Your task to perform on an android device: toggle location history Image 0: 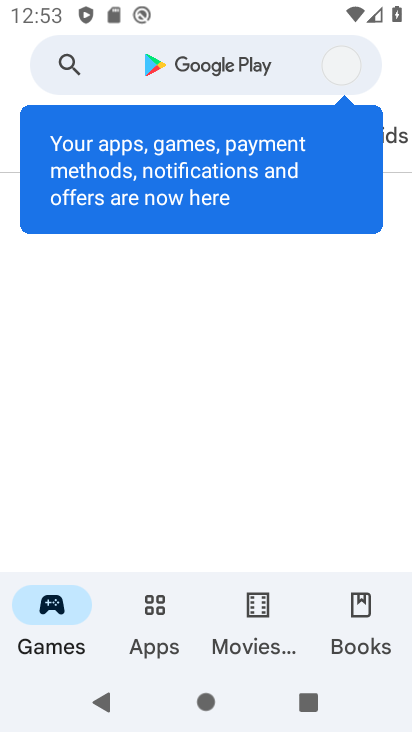
Step 0: press home button
Your task to perform on an android device: toggle location history Image 1: 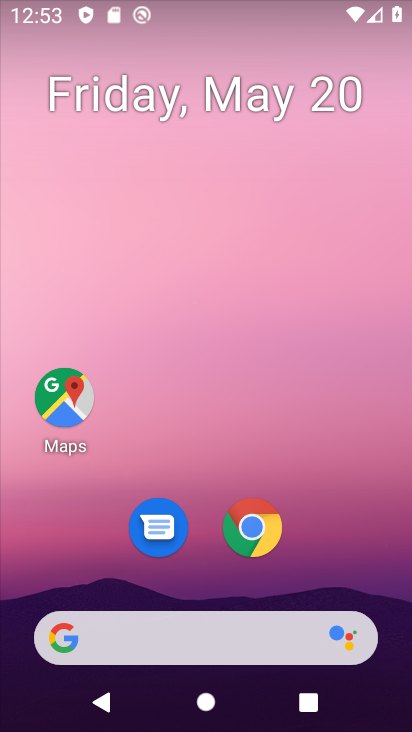
Step 1: click (60, 397)
Your task to perform on an android device: toggle location history Image 2: 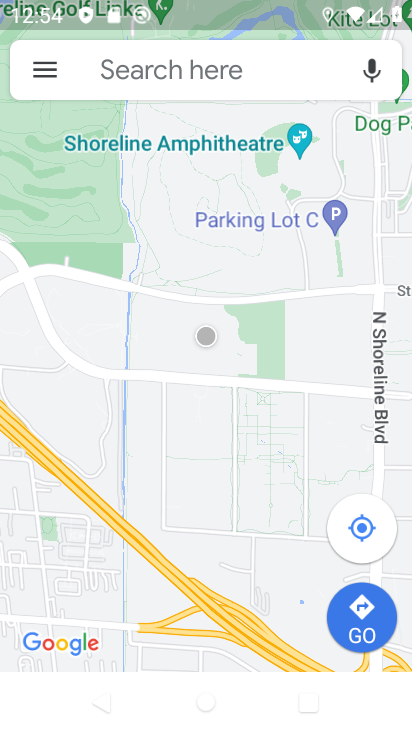
Step 2: click (48, 73)
Your task to perform on an android device: toggle location history Image 3: 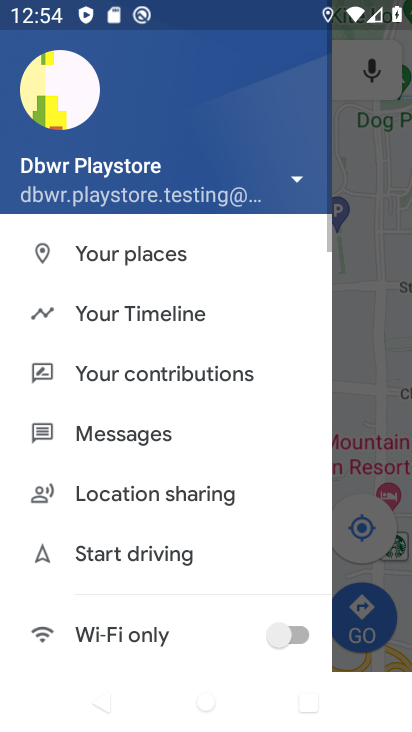
Step 3: click (141, 306)
Your task to perform on an android device: toggle location history Image 4: 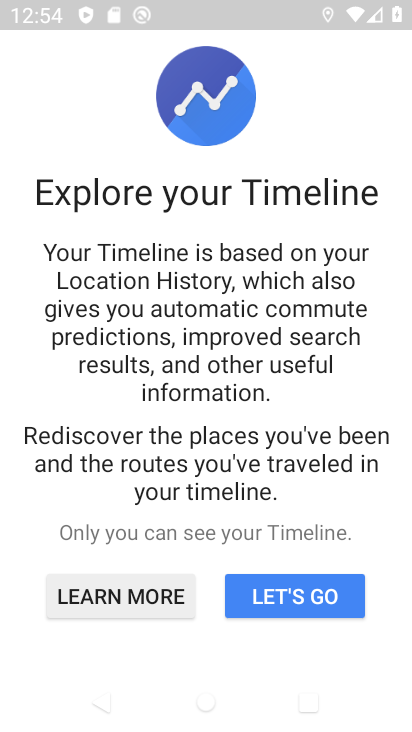
Step 4: drag from (184, 516) to (337, 225)
Your task to perform on an android device: toggle location history Image 5: 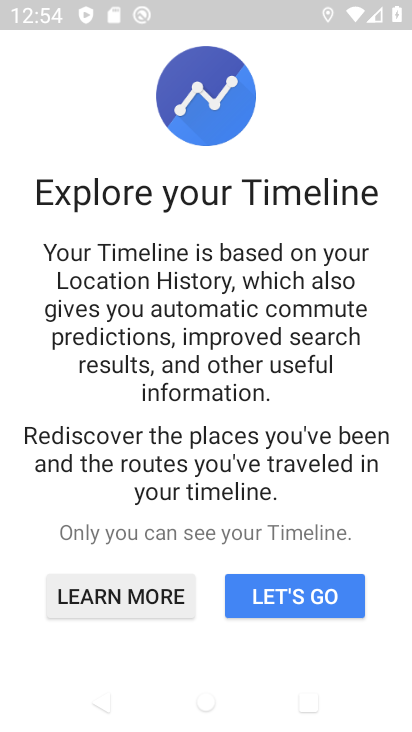
Step 5: click (313, 592)
Your task to perform on an android device: toggle location history Image 6: 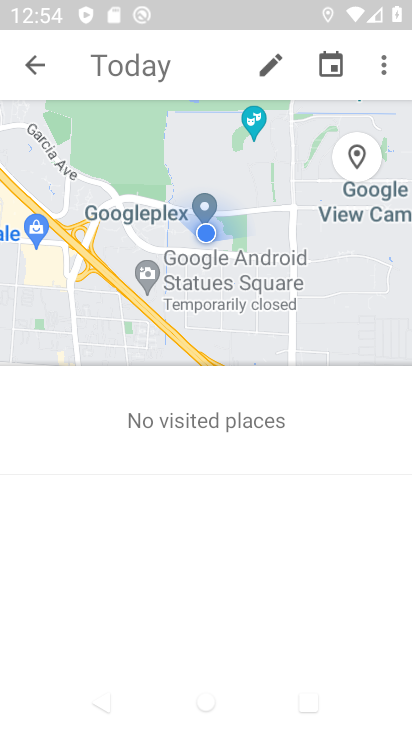
Step 6: click (388, 63)
Your task to perform on an android device: toggle location history Image 7: 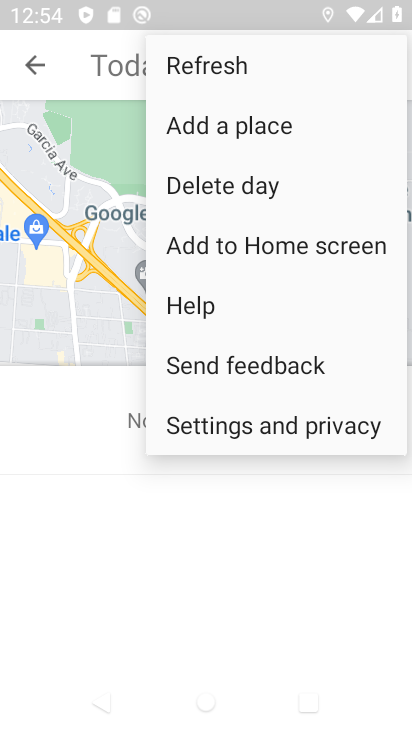
Step 7: click (245, 422)
Your task to perform on an android device: toggle location history Image 8: 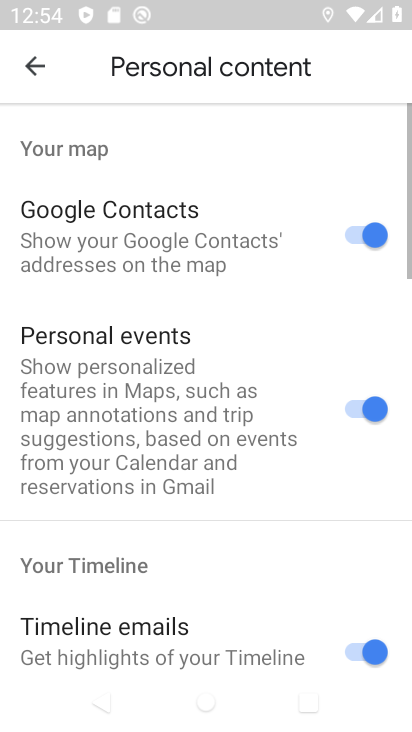
Step 8: drag from (172, 591) to (372, 39)
Your task to perform on an android device: toggle location history Image 9: 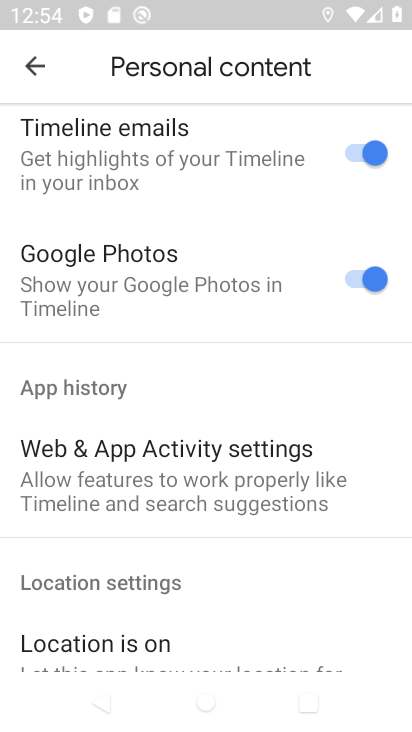
Step 9: drag from (211, 517) to (344, 153)
Your task to perform on an android device: toggle location history Image 10: 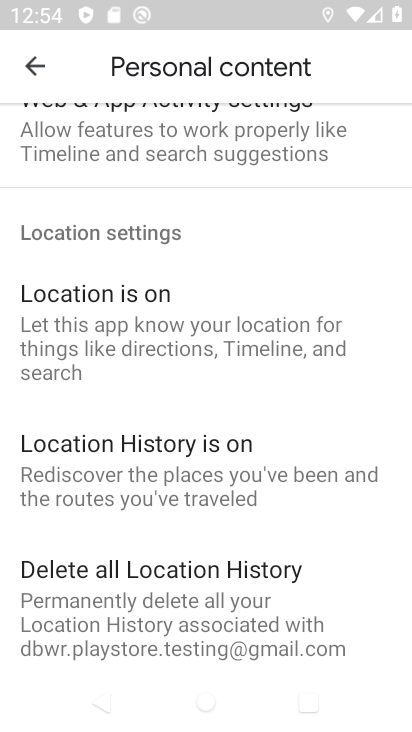
Step 10: click (221, 463)
Your task to perform on an android device: toggle location history Image 11: 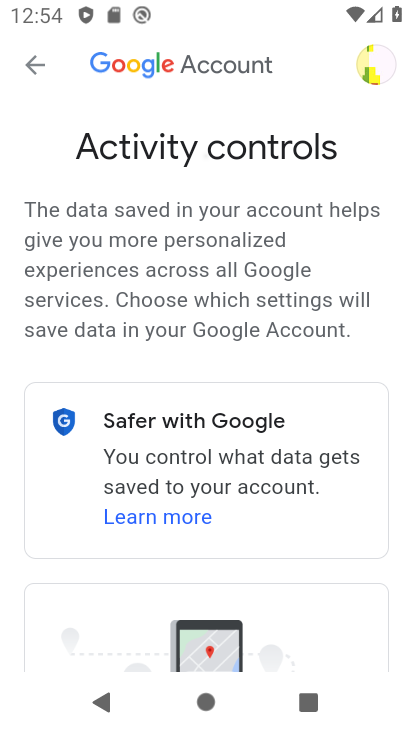
Step 11: drag from (248, 595) to (389, 90)
Your task to perform on an android device: toggle location history Image 12: 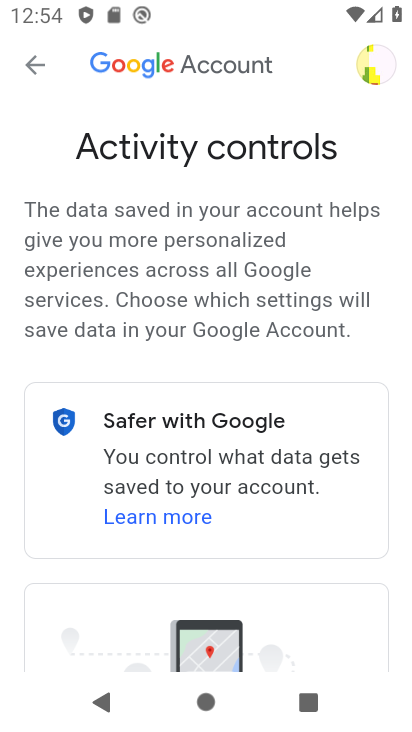
Step 12: drag from (136, 621) to (395, 9)
Your task to perform on an android device: toggle location history Image 13: 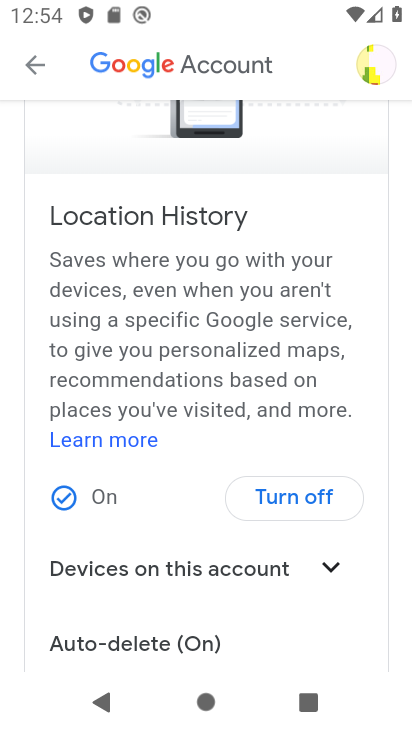
Step 13: click (312, 496)
Your task to perform on an android device: toggle location history Image 14: 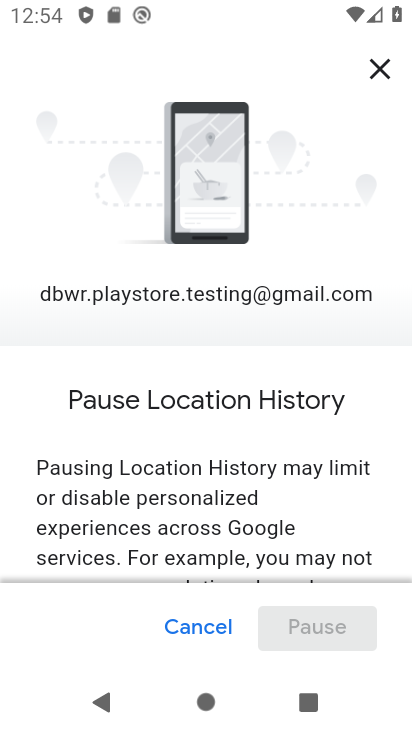
Step 14: drag from (257, 554) to (360, 176)
Your task to perform on an android device: toggle location history Image 15: 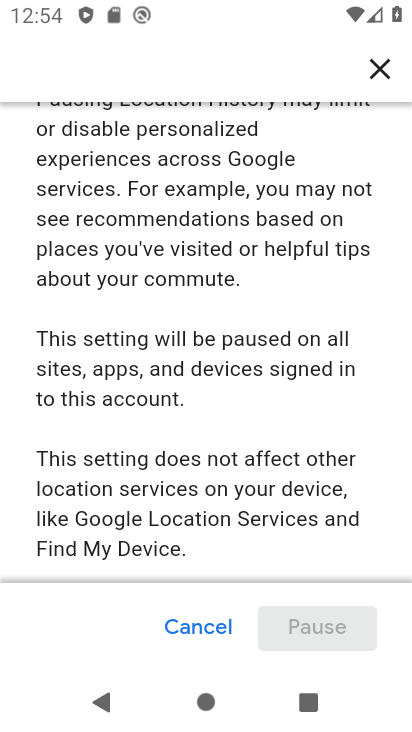
Step 15: drag from (244, 511) to (346, 165)
Your task to perform on an android device: toggle location history Image 16: 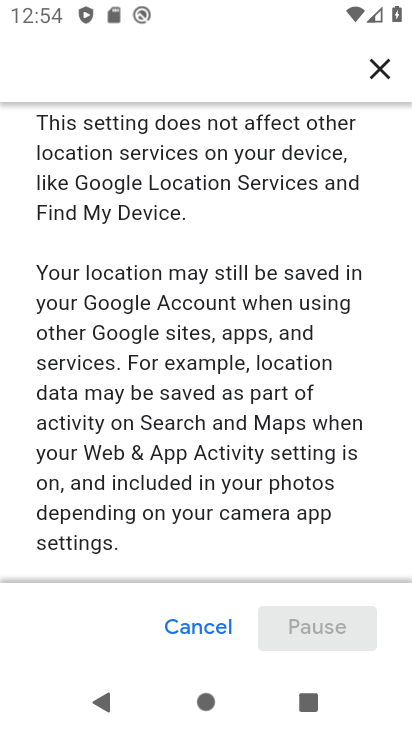
Step 16: drag from (250, 544) to (344, 138)
Your task to perform on an android device: toggle location history Image 17: 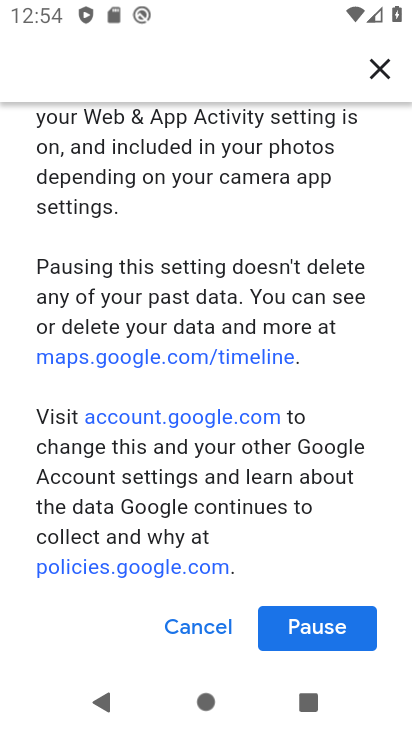
Step 17: click (312, 622)
Your task to perform on an android device: toggle location history Image 18: 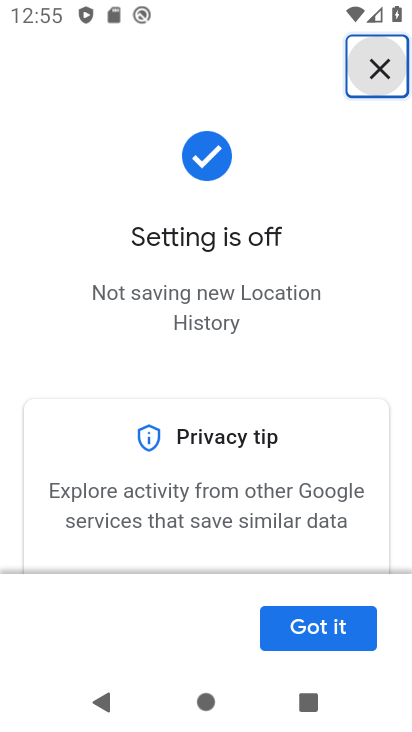
Step 18: click (330, 633)
Your task to perform on an android device: toggle location history Image 19: 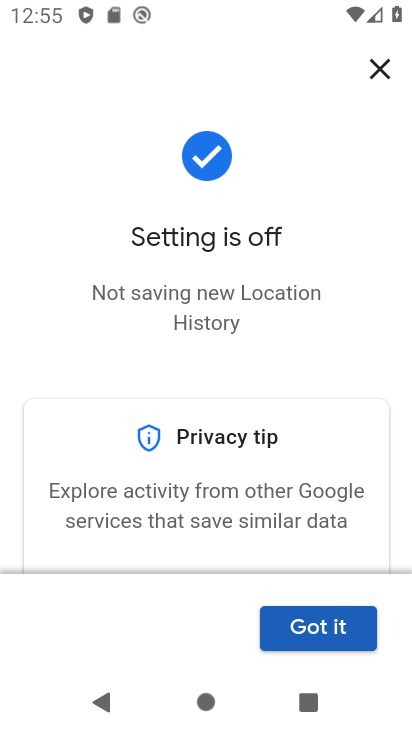
Step 19: task complete